Your task to perform on an android device: turn off picture-in-picture Image 0: 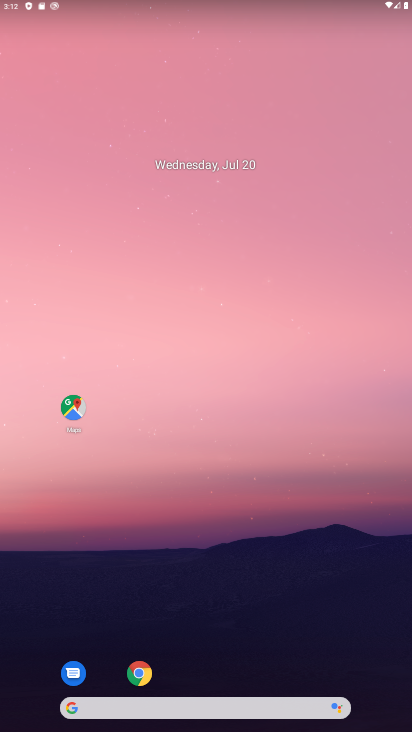
Step 0: drag from (239, 615) to (313, 552)
Your task to perform on an android device: turn off picture-in-picture Image 1: 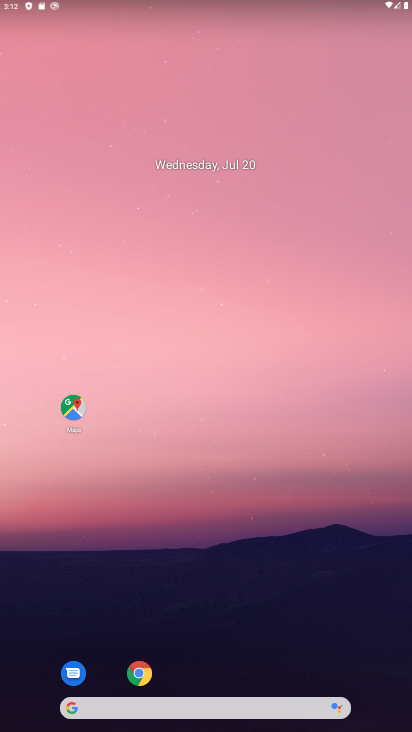
Step 1: drag from (225, 103) to (224, 58)
Your task to perform on an android device: turn off picture-in-picture Image 2: 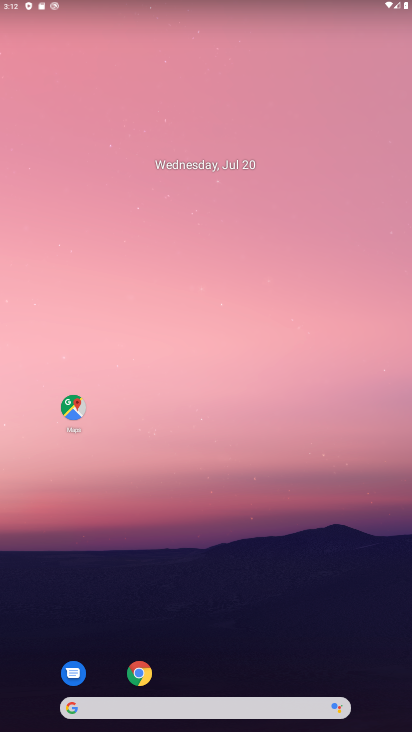
Step 2: drag from (245, 585) to (254, 2)
Your task to perform on an android device: turn off picture-in-picture Image 3: 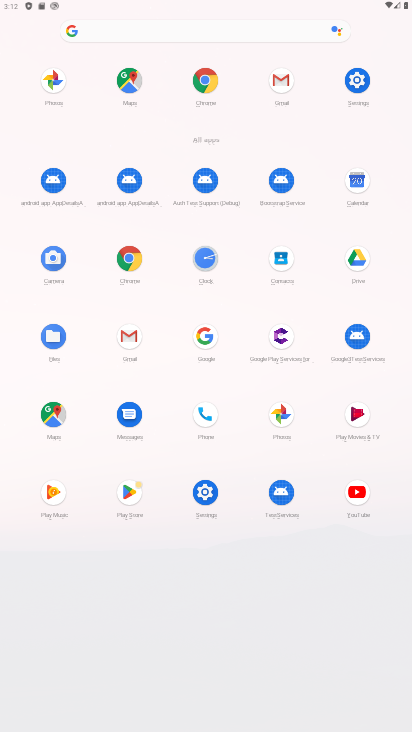
Step 3: click (355, 81)
Your task to perform on an android device: turn off picture-in-picture Image 4: 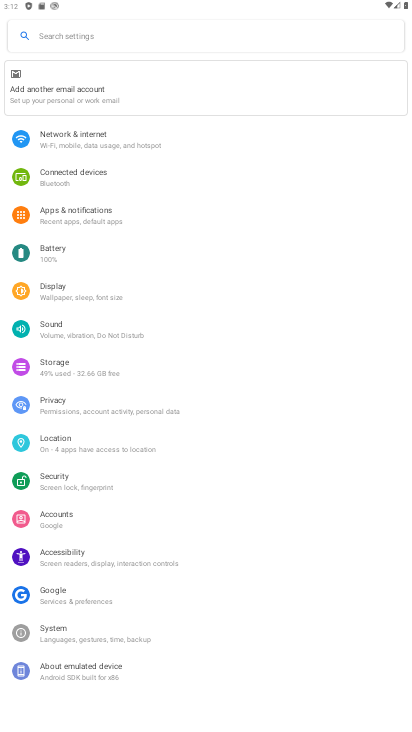
Step 4: click (123, 220)
Your task to perform on an android device: turn off picture-in-picture Image 5: 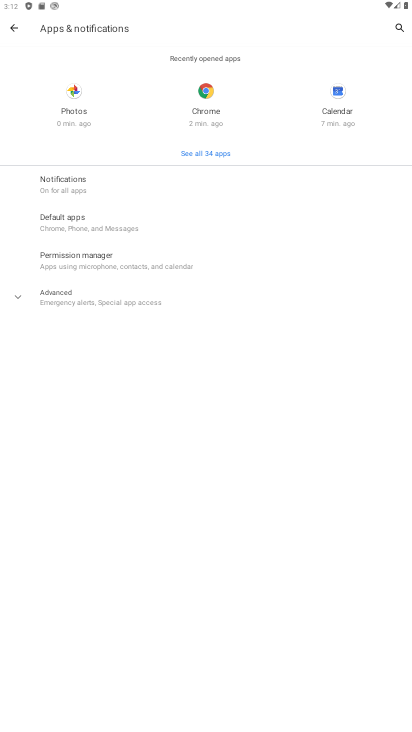
Step 5: click (56, 293)
Your task to perform on an android device: turn off picture-in-picture Image 6: 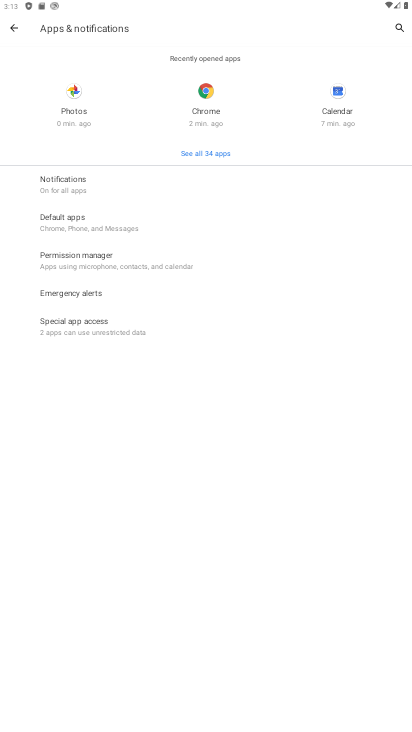
Step 6: click (119, 324)
Your task to perform on an android device: turn off picture-in-picture Image 7: 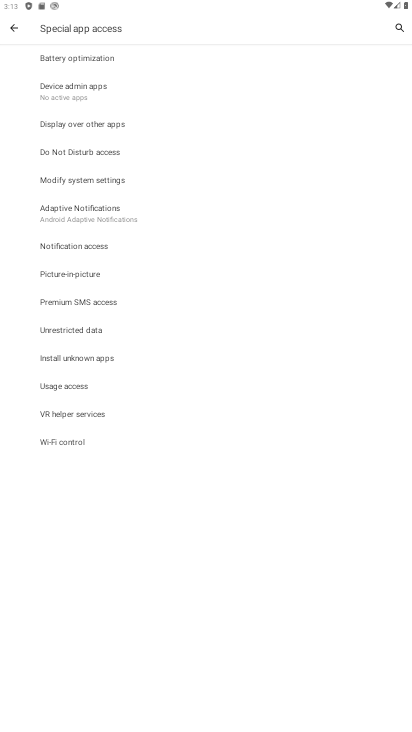
Step 7: click (110, 269)
Your task to perform on an android device: turn off picture-in-picture Image 8: 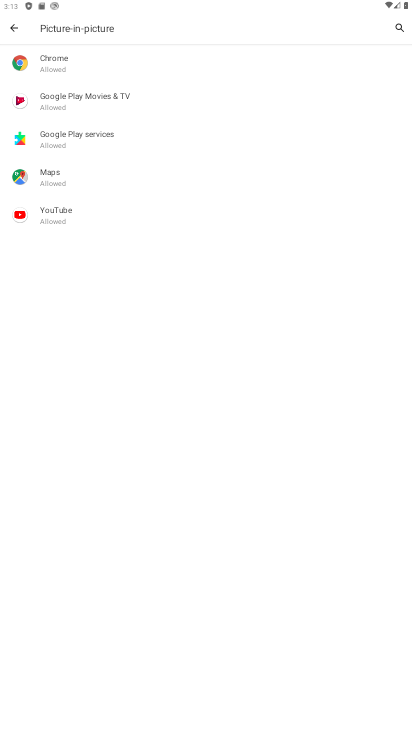
Step 8: click (75, 206)
Your task to perform on an android device: turn off picture-in-picture Image 9: 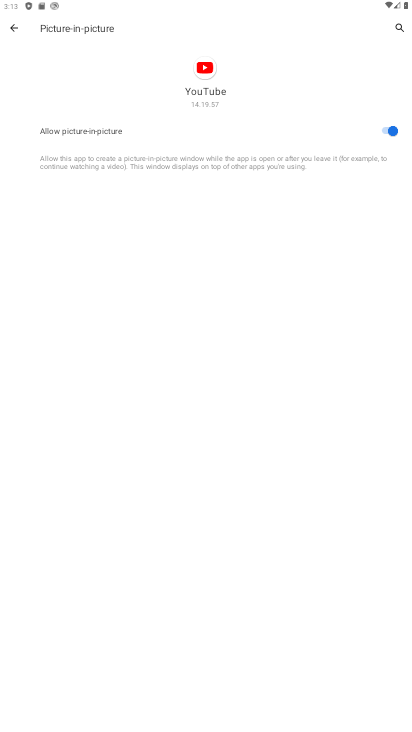
Step 9: click (391, 139)
Your task to perform on an android device: turn off picture-in-picture Image 10: 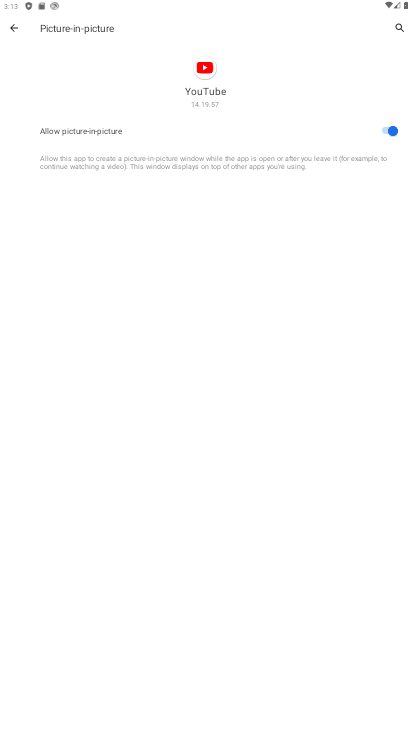
Step 10: click (391, 133)
Your task to perform on an android device: turn off picture-in-picture Image 11: 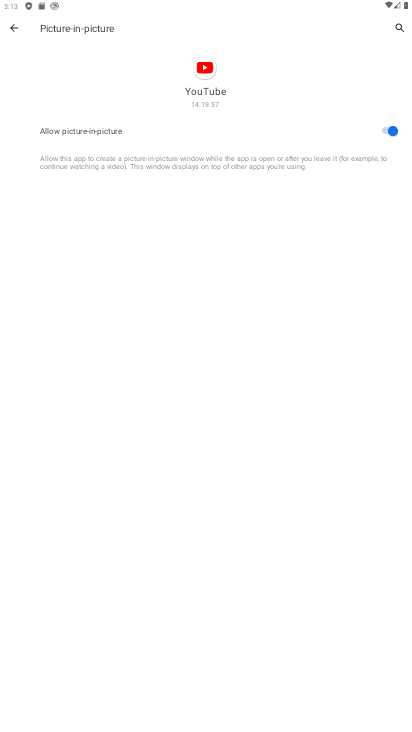
Step 11: click (368, 129)
Your task to perform on an android device: turn off picture-in-picture Image 12: 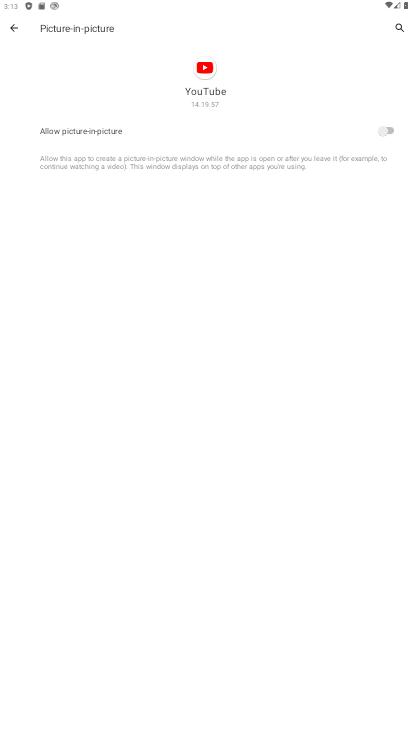
Step 12: task complete